Your task to perform on an android device: Is it going to rain tomorrow? Image 0: 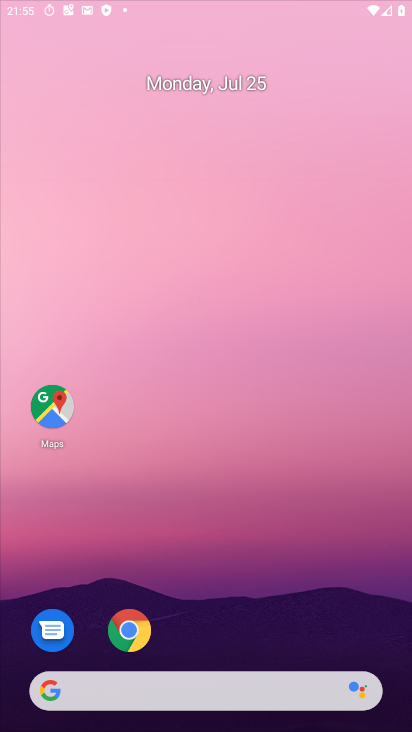
Step 0: press home button
Your task to perform on an android device: Is it going to rain tomorrow? Image 1: 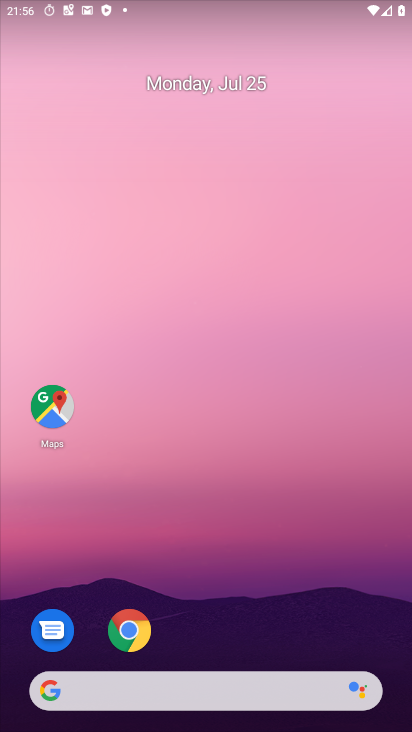
Step 1: click (49, 694)
Your task to perform on an android device: Is it going to rain tomorrow? Image 2: 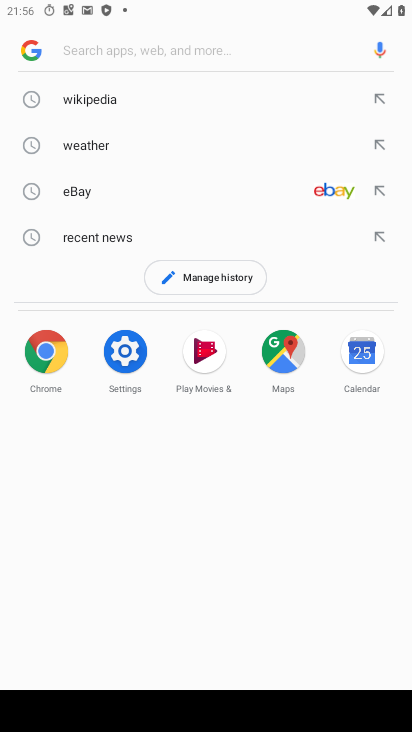
Step 2: type "rain tomorrow?"
Your task to perform on an android device: Is it going to rain tomorrow? Image 3: 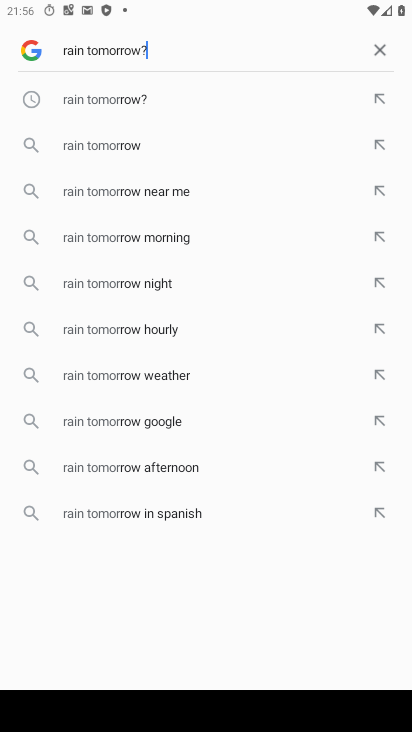
Step 3: press enter
Your task to perform on an android device: Is it going to rain tomorrow? Image 4: 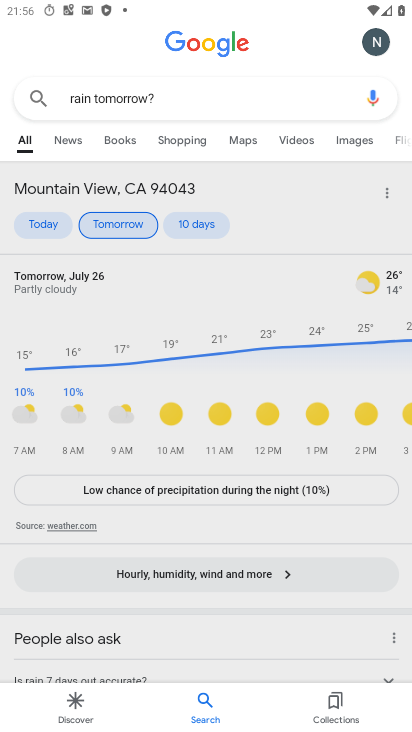
Step 4: task complete